Your task to perform on an android device: Go to notification settings Image 0: 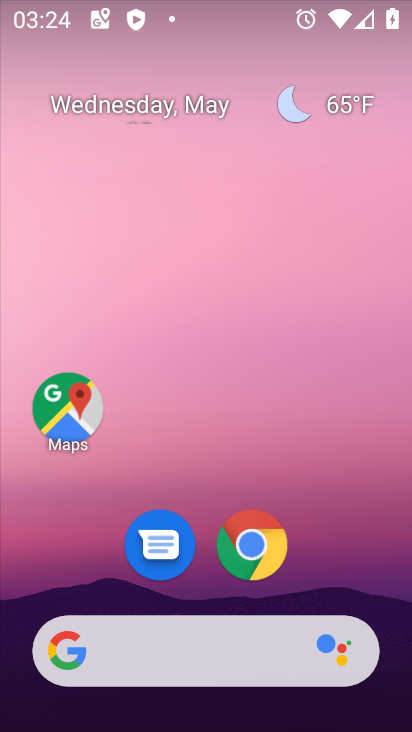
Step 0: drag from (324, 407) to (241, 80)
Your task to perform on an android device: Go to notification settings Image 1: 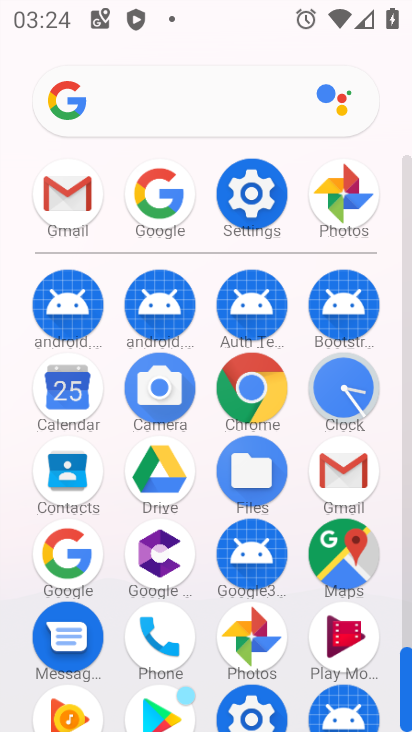
Step 1: click (253, 170)
Your task to perform on an android device: Go to notification settings Image 2: 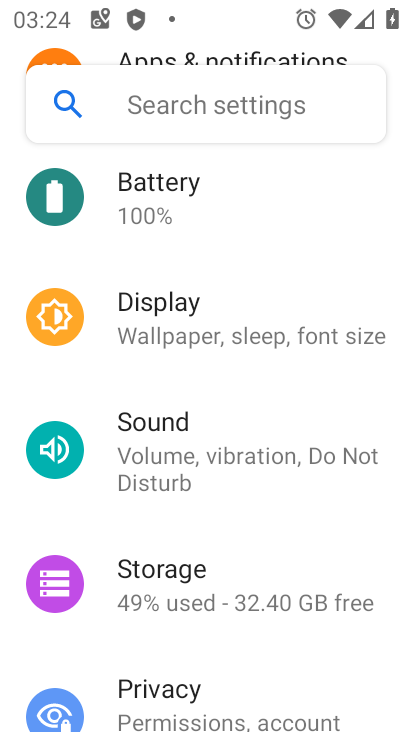
Step 2: drag from (273, 234) to (234, 625)
Your task to perform on an android device: Go to notification settings Image 3: 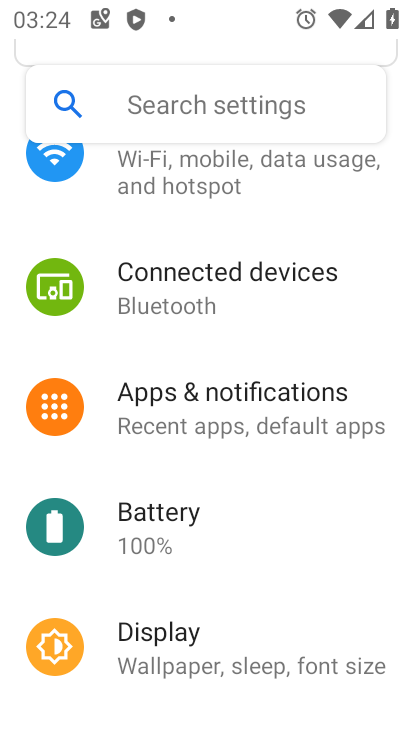
Step 3: click (236, 434)
Your task to perform on an android device: Go to notification settings Image 4: 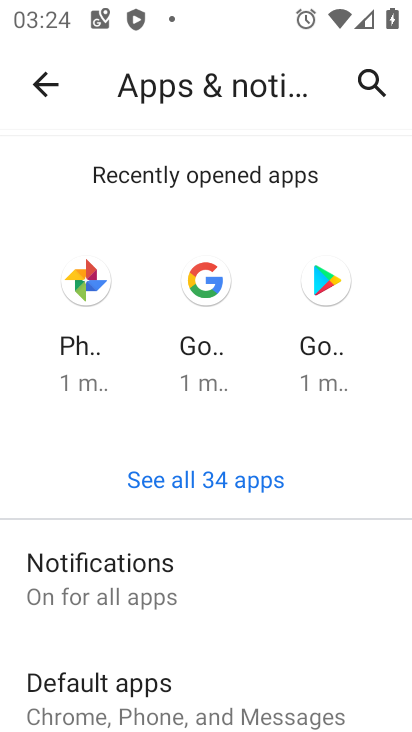
Step 4: task complete